Your task to perform on an android device: turn on bluetooth scan Image 0: 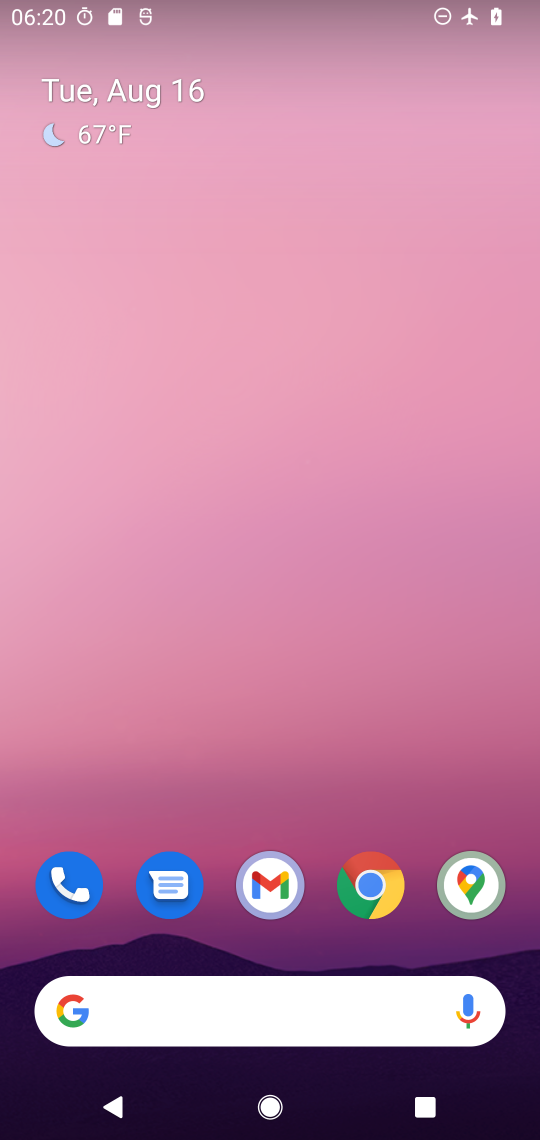
Step 0: drag from (269, 944) to (318, 222)
Your task to perform on an android device: turn on bluetooth scan Image 1: 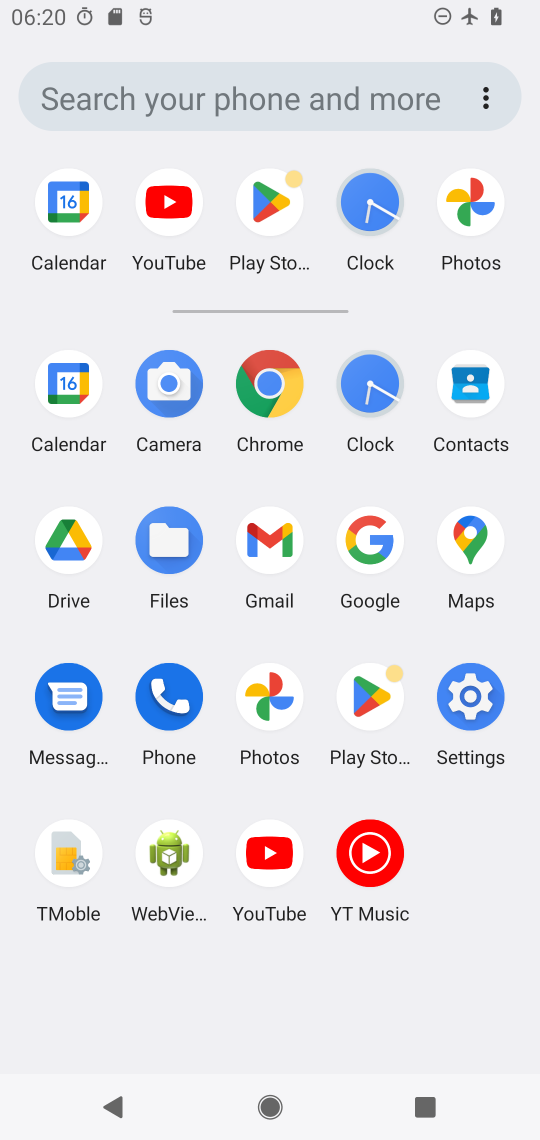
Step 1: click (488, 687)
Your task to perform on an android device: turn on bluetooth scan Image 2: 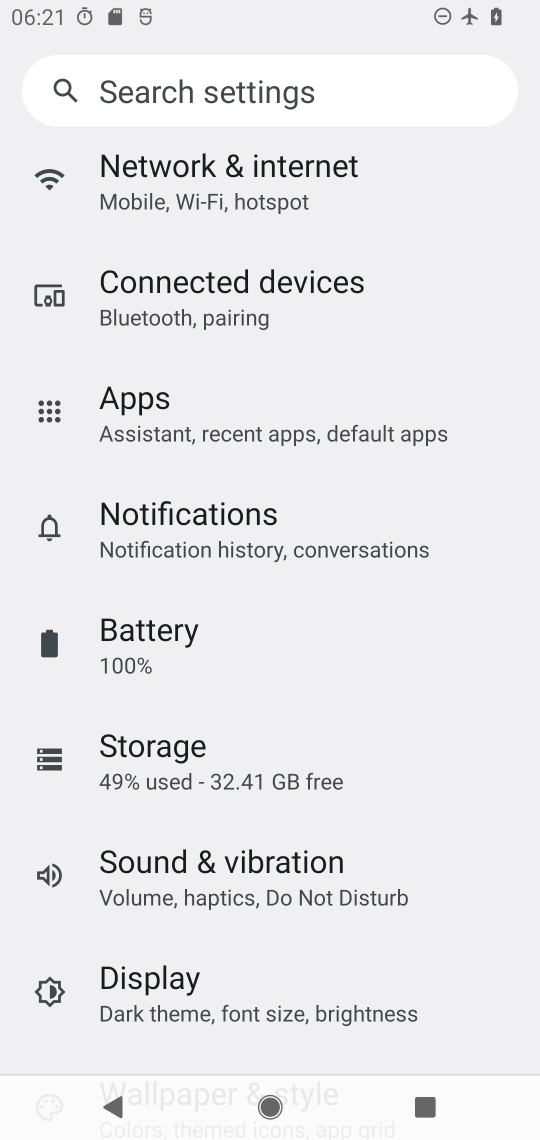
Step 2: click (233, 94)
Your task to perform on an android device: turn on bluetooth scan Image 3: 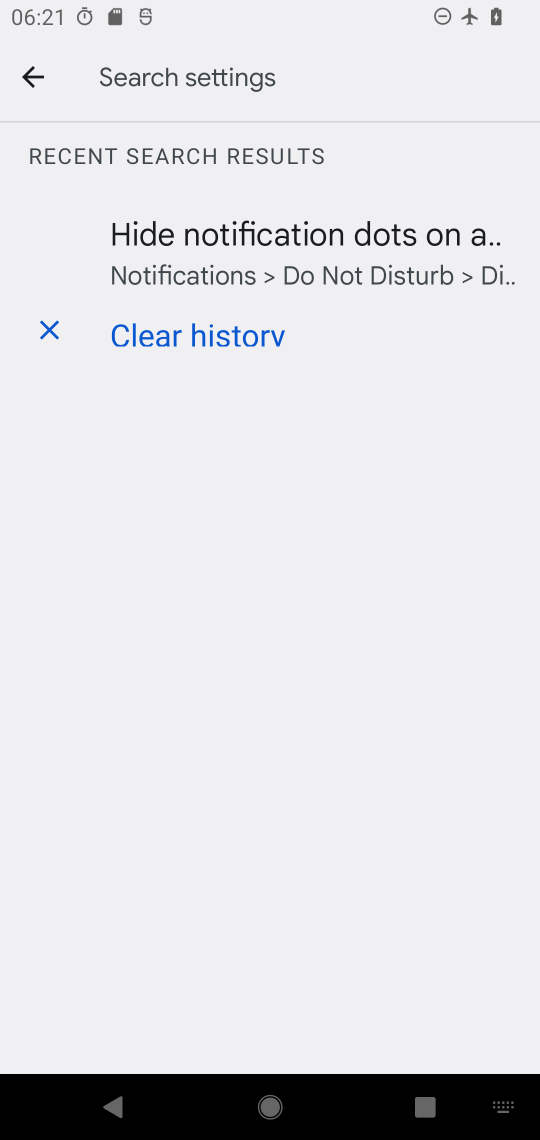
Step 3: click (264, 68)
Your task to perform on an android device: turn on bluetooth scan Image 4: 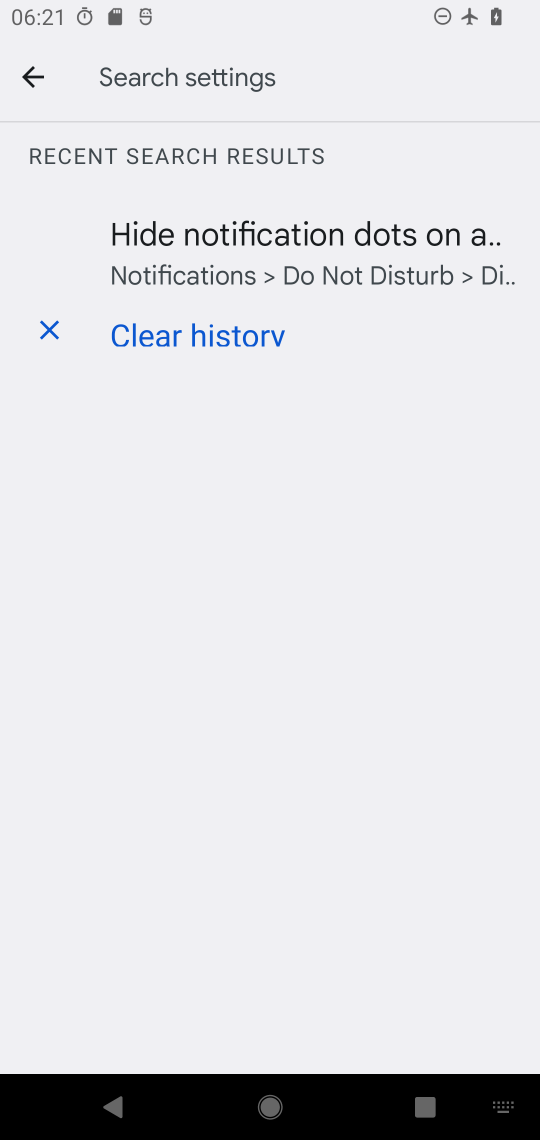
Step 4: type "bluetooth scan "
Your task to perform on an android device: turn on bluetooth scan Image 5: 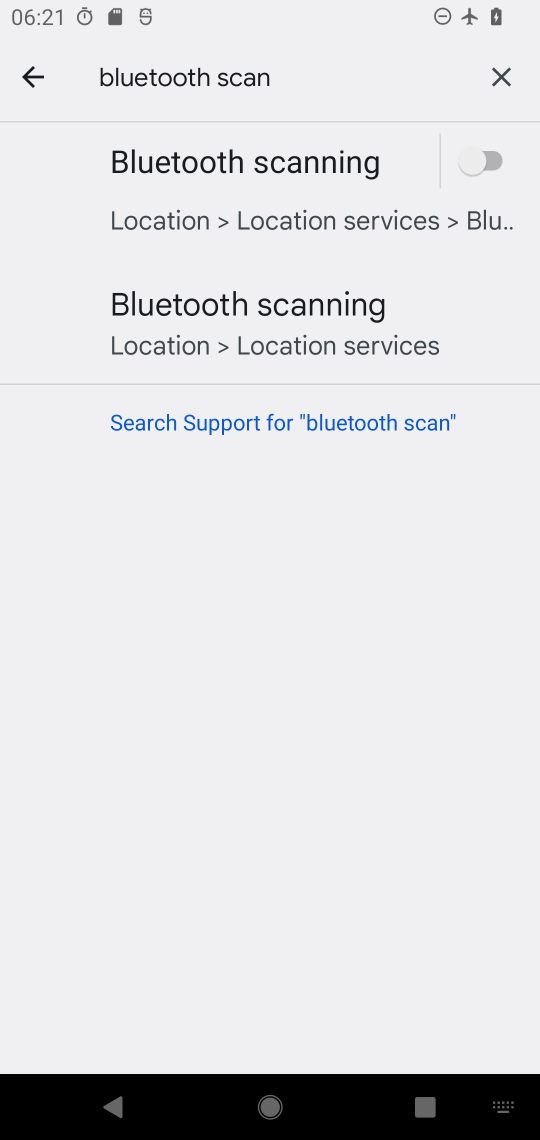
Step 5: click (252, 173)
Your task to perform on an android device: turn on bluetooth scan Image 6: 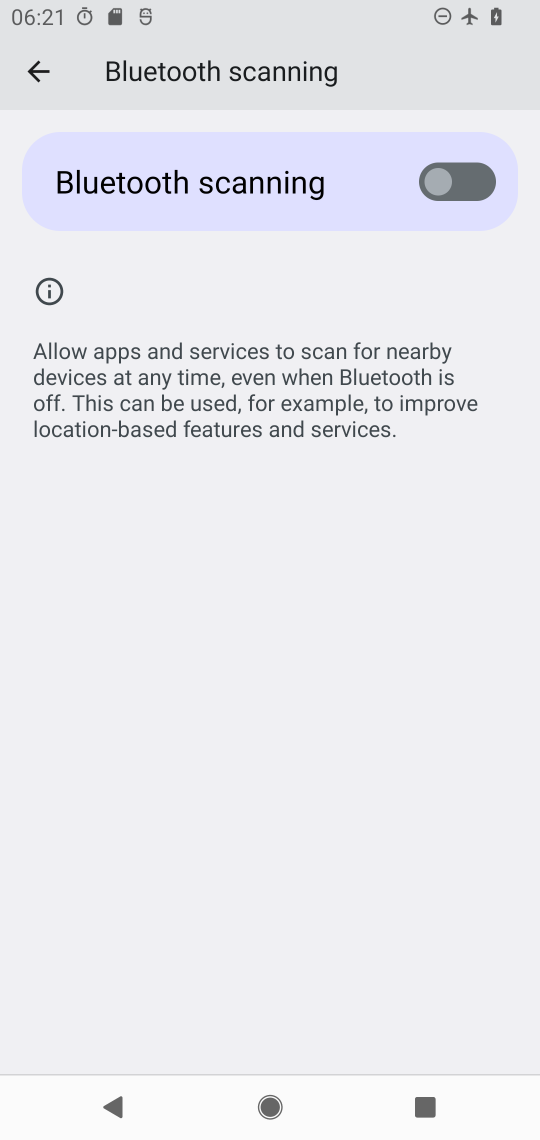
Step 6: click (436, 171)
Your task to perform on an android device: turn on bluetooth scan Image 7: 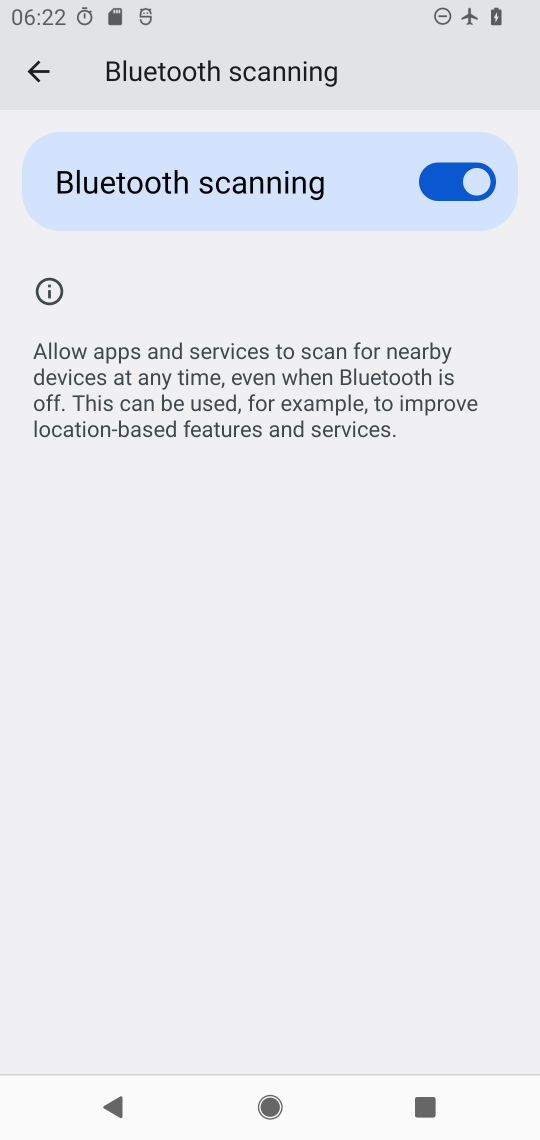
Step 7: task complete